Your task to perform on an android device: change notification settings in the gmail app Image 0: 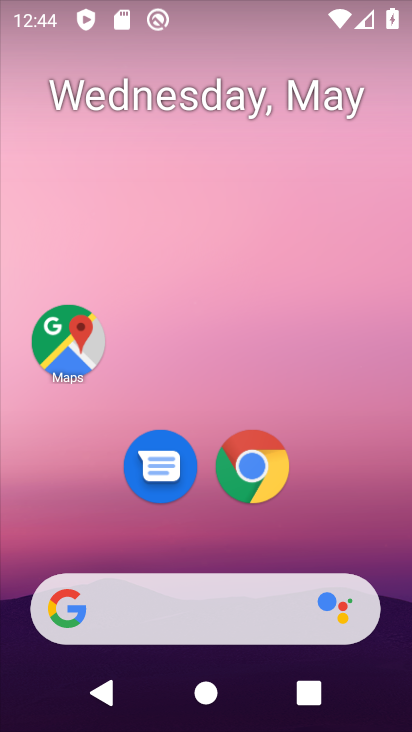
Step 0: drag from (233, 534) to (200, 78)
Your task to perform on an android device: change notification settings in the gmail app Image 1: 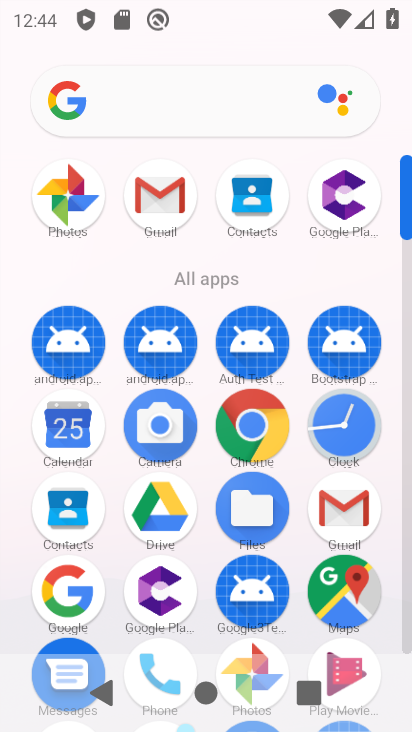
Step 1: click (165, 200)
Your task to perform on an android device: change notification settings in the gmail app Image 2: 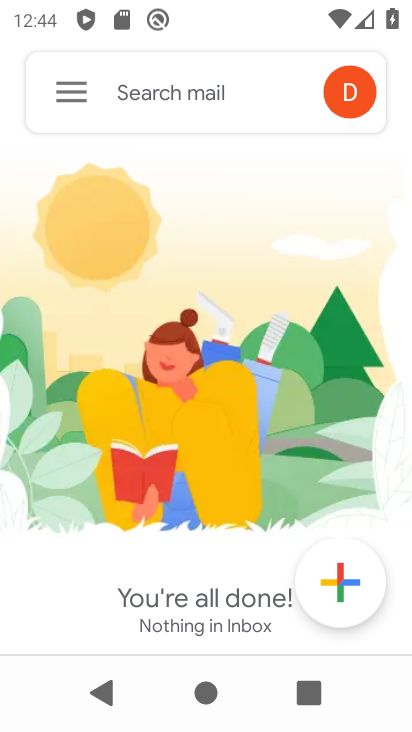
Step 2: click (77, 94)
Your task to perform on an android device: change notification settings in the gmail app Image 3: 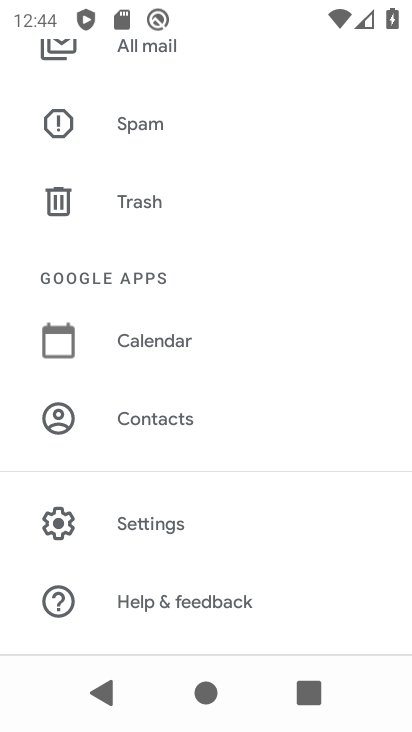
Step 3: click (165, 536)
Your task to perform on an android device: change notification settings in the gmail app Image 4: 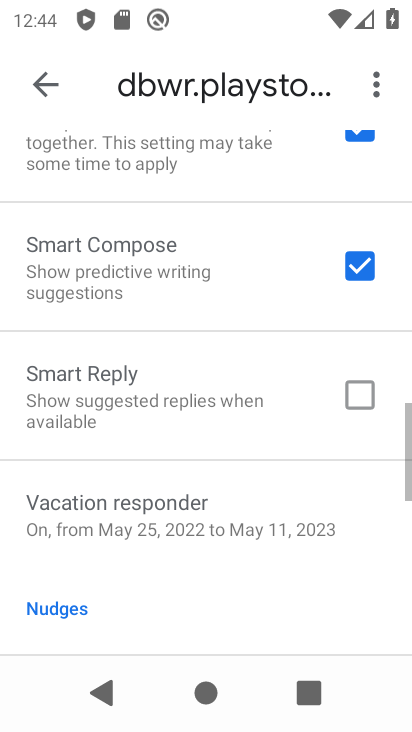
Step 4: drag from (182, 535) to (197, 166)
Your task to perform on an android device: change notification settings in the gmail app Image 5: 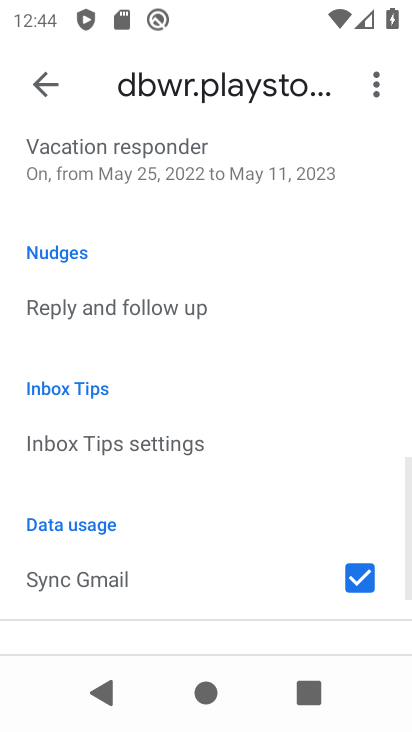
Step 5: drag from (142, 586) to (236, 134)
Your task to perform on an android device: change notification settings in the gmail app Image 6: 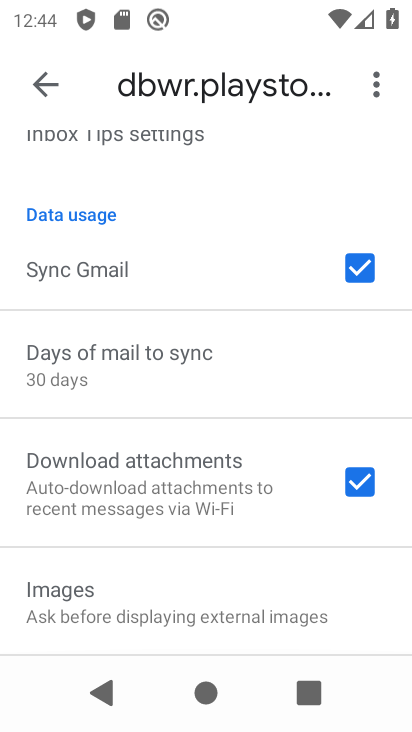
Step 6: drag from (186, 599) to (177, 137)
Your task to perform on an android device: change notification settings in the gmail app Image 7: 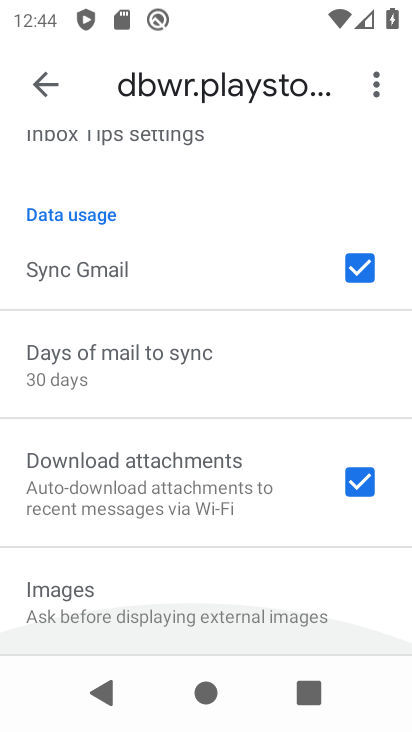
Step 7: drag from (183, 208) to (198, 554)
Your task to perform on an android device: change notification settings in the gmail app Image 8: 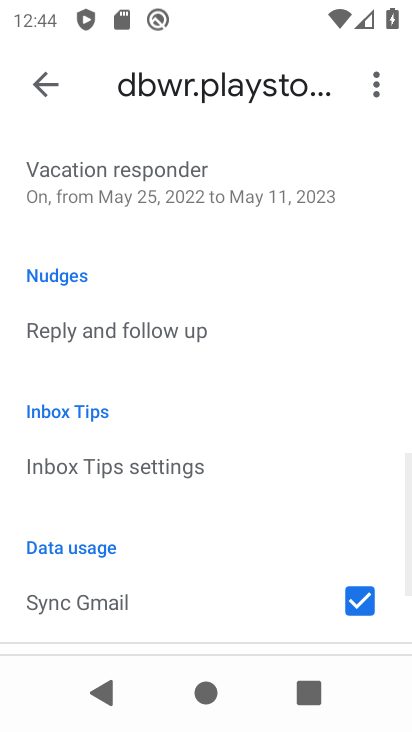
Step 8: drag from (152, 224) to (202, 602)
Your task to perform on an android device: change notification settings in the gmail app Image 9: 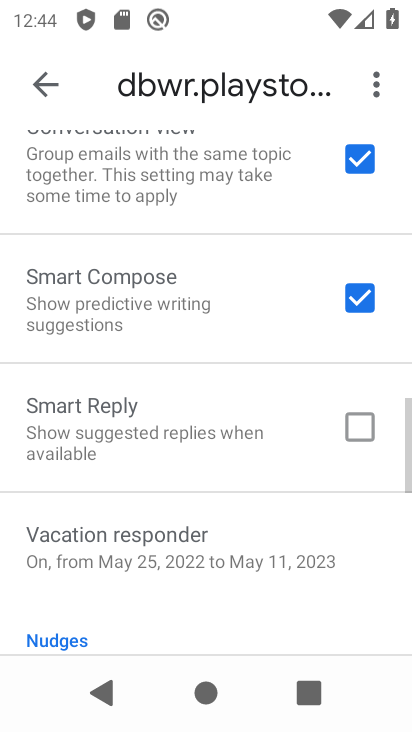
Step 9: drag from (143, 209) to (213, 556)
Your task to perform on an android device: change notification settings in the gmail app Image 10: 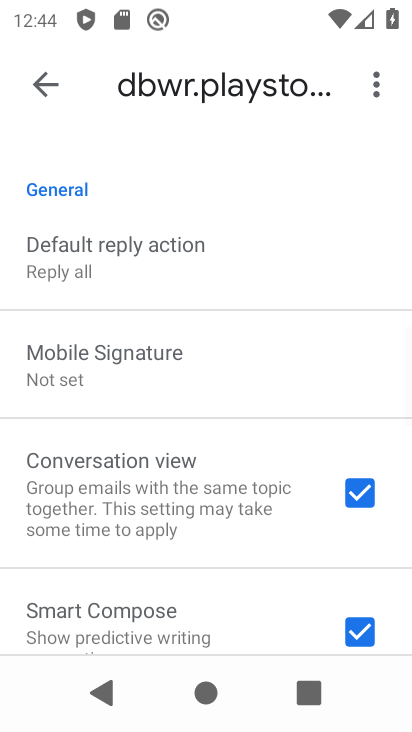
Step 10: drag from (117, 222) to (204, 537)
Your task to perform on an android device: change notification settings in the gmail app Image 11: 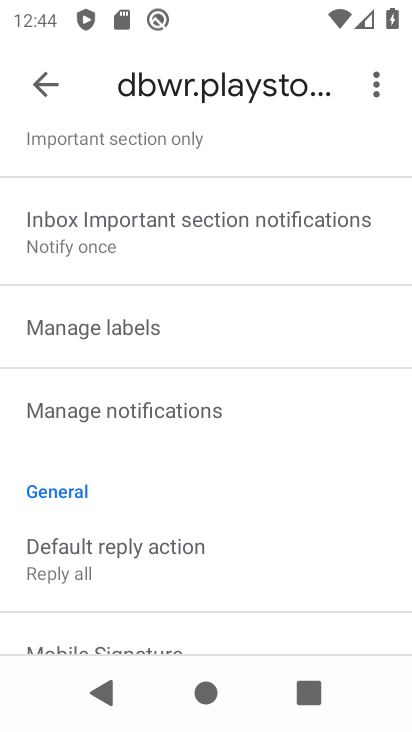
Step 11: drag from (108, 191) to (141, 385)
Your task to perform on an android device: change notification settings in the gmail app Image 12: 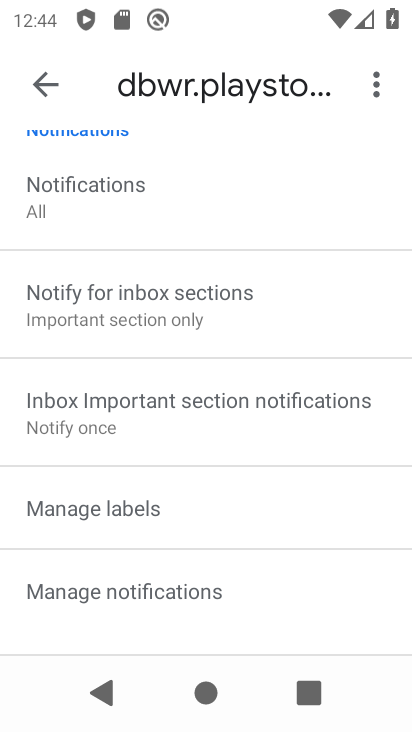
Step 12: click (90, 204)
Your task to perform on an android device: change notification settings in the gmail app Image 13: 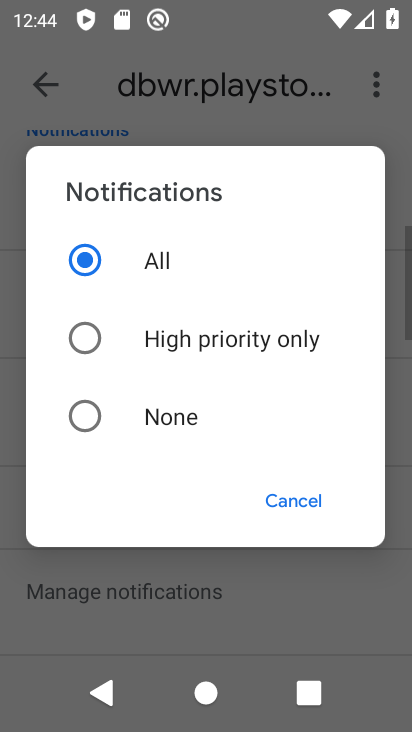
Step 13: click (87, 411)
Your task to perform on an android device: change notification settings in the gmail app Image 14: 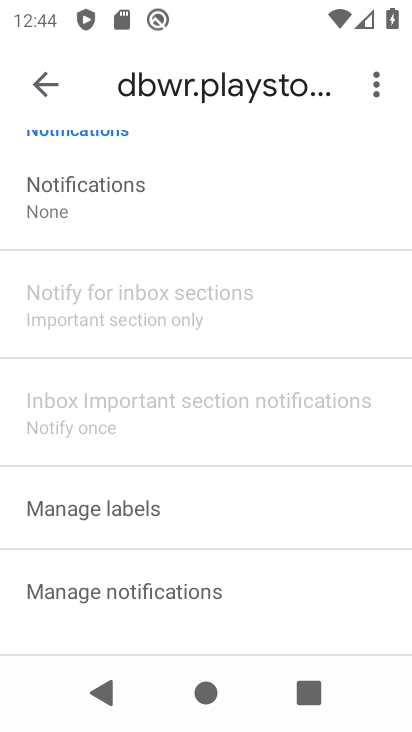
Step 14: task complete